Your task to perform on an android device: all mails in gmail Image 0: 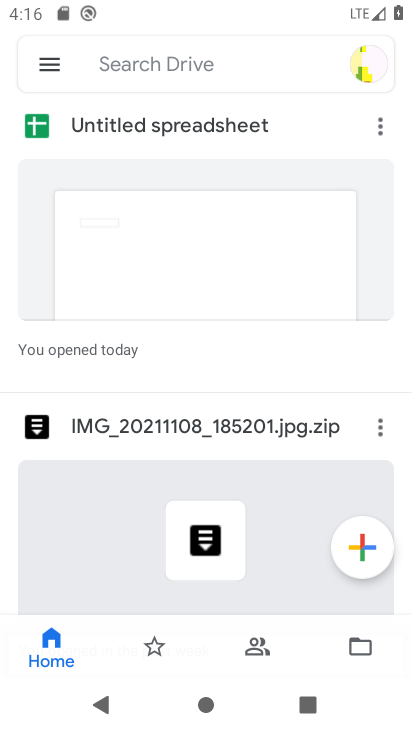
Step 0: press home button
Your task to perform on an android device: all mails in gmail Image 1: 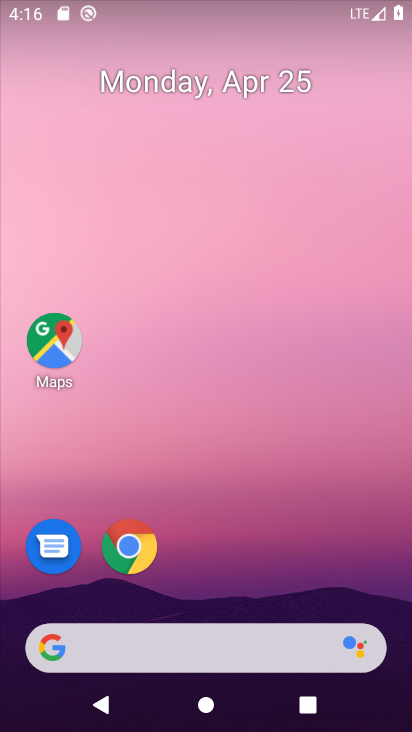
Step 1: drag from (271, 484) to (369, 9)
Your task to perform on an android device: all mails in gmail Image 2: 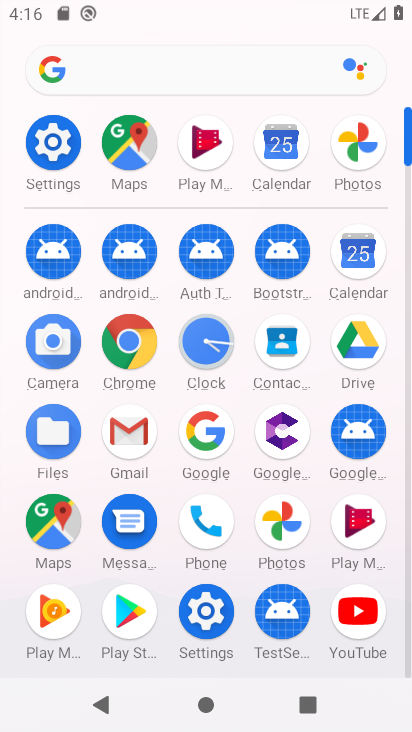
Step 2: click (121, 442)
Your task to perform on an android device: all mails in gmail Image 3: 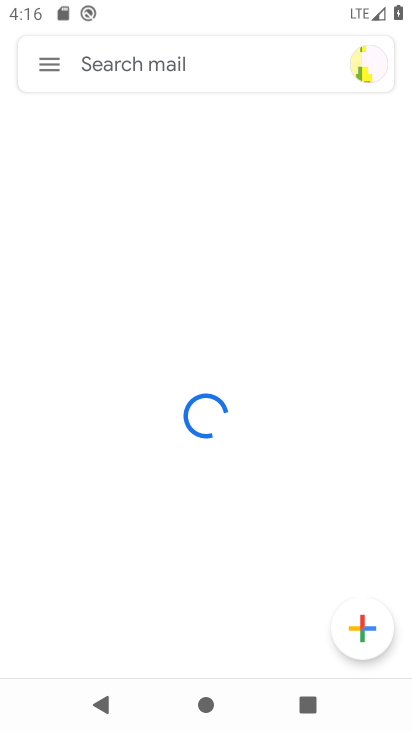
Step 3: click (53, 60)
Your task to perform on an android device: all mails in gmail Image 4: 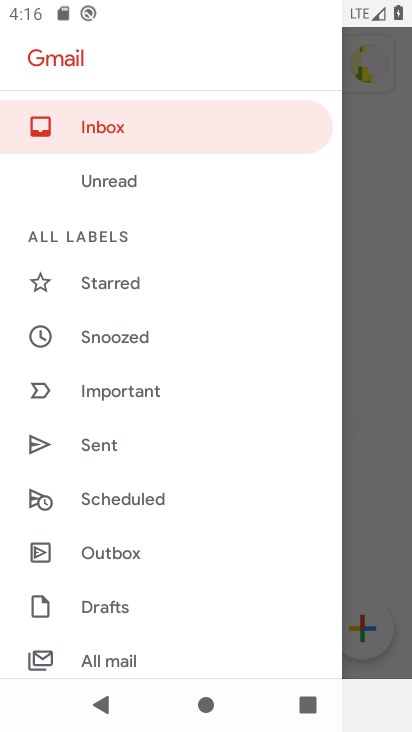
Step 4: drag from (139, 473) to (206, 242)
Your task to perform on an android device: all mails in gmail Image 5: 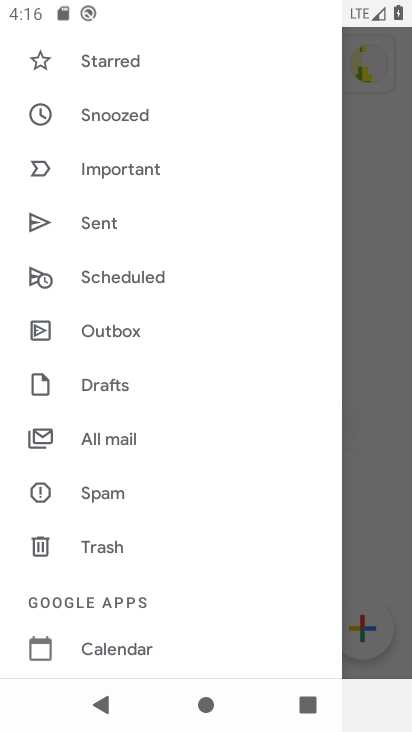
Step 5: click (151, 438)
Your task to perform on an android device: all mails in gmail Image 6: 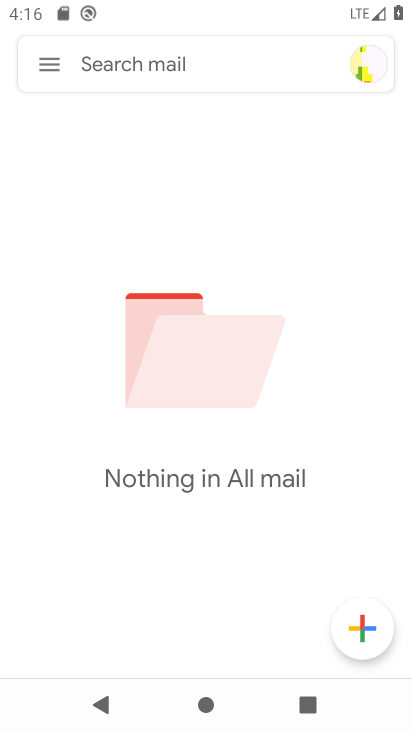
Step 6: task complete